Your task to perform on an android device: turn on sleep mode Image 0: 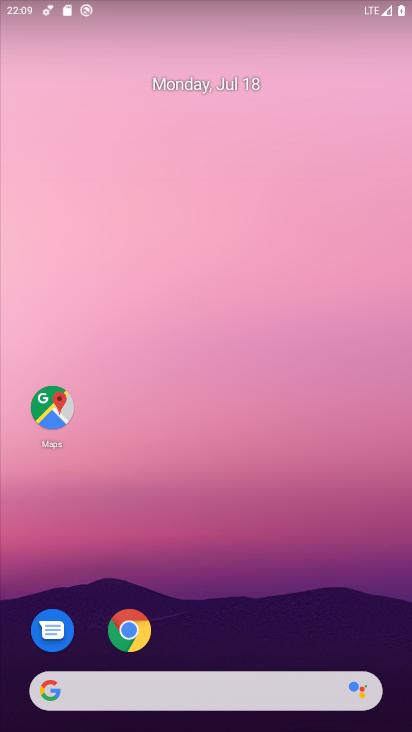
Step 0: drag from (237, 612) to (265, 222)
Your task to perform on an android device: turn on sleep mode Image 1: 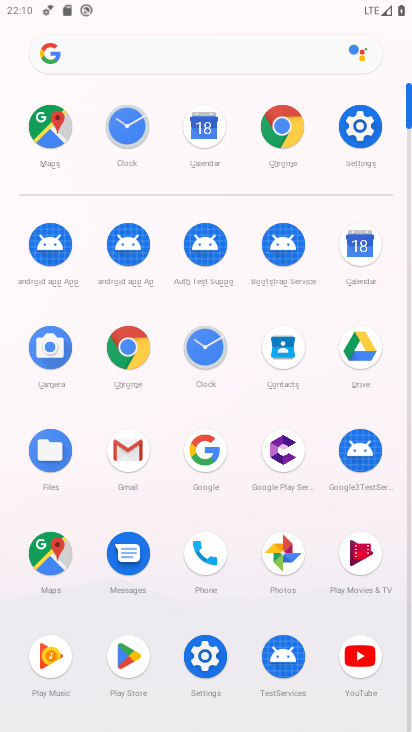
Step 1: click (27, 170)
Your task to perform on an android device: turn on sleep mode Image 2: 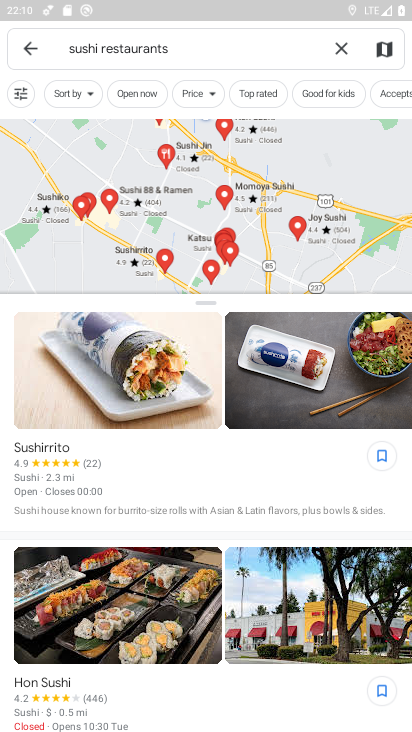
Step 2: press home button
Your task to perform on an android device: turn on sleep mode Image 3: 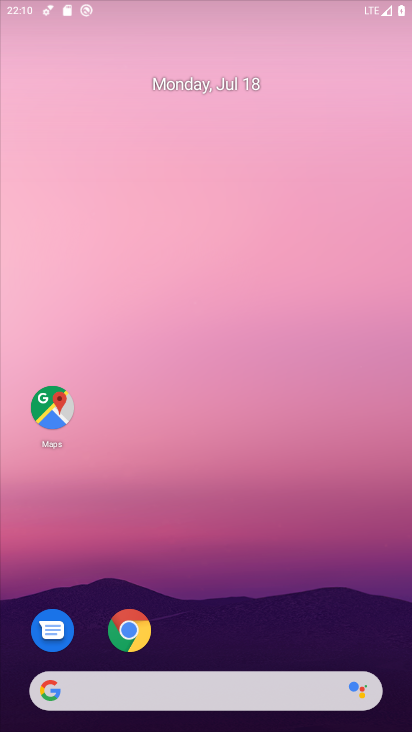
Step 3: drag from (185, 608) to (195, 122)
Your task to perform on an android device: turn on sleep mode Image 4: 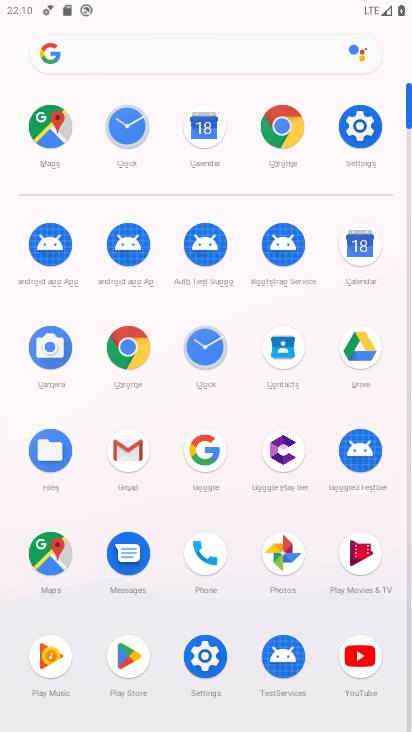
Step 4: click (356, 126)
Your task to perform on an android device: turn on sleep mode Image 5: 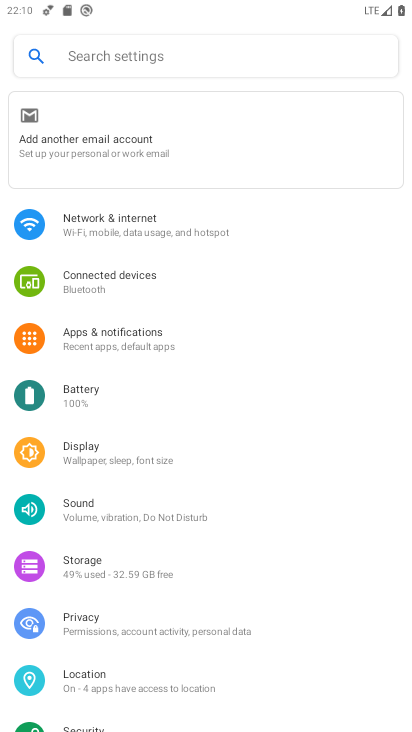
Step 5: task complete